Your task to perform on an android device: add a contact in the contacts app Image 0: 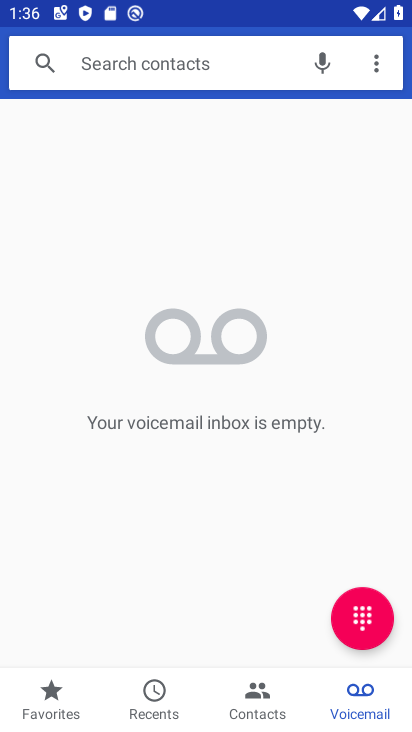
Step 0: press home button
Your task to perform on an android device: add a contact in the contacts app Image 1: 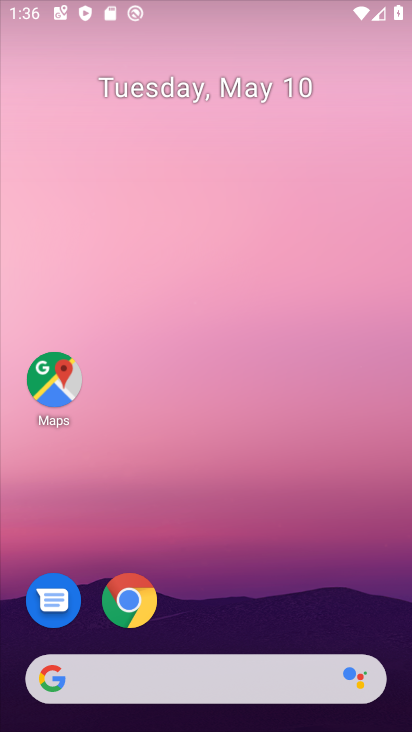
Step 1: drag from (250, 573) to (257, 52)
Your task to perform on an android device: add a contact in the contacts app Image 2: 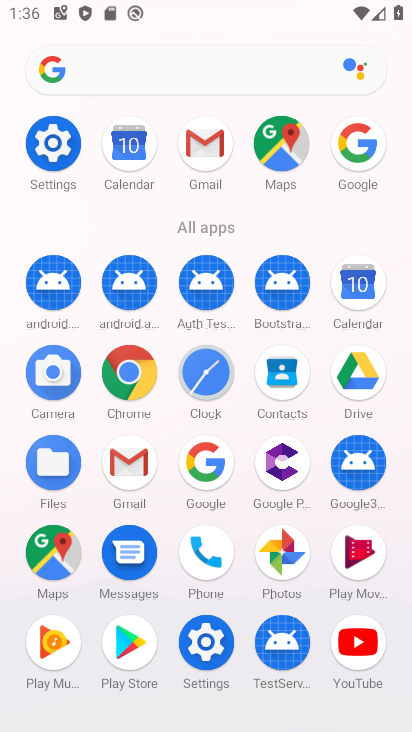
Step 2: click (277, 378)
Your task to perform on an android device: add a contact in the contacts app Image 3: 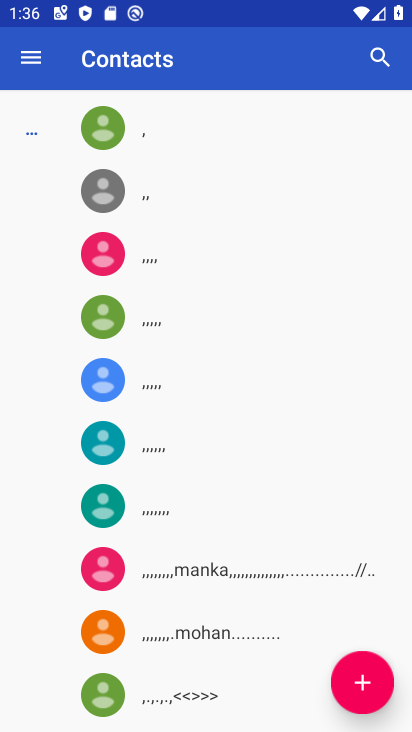
Step 3: type "gffrs"
Your task to perform on an android device: add a contact in the contacts app Image 4: 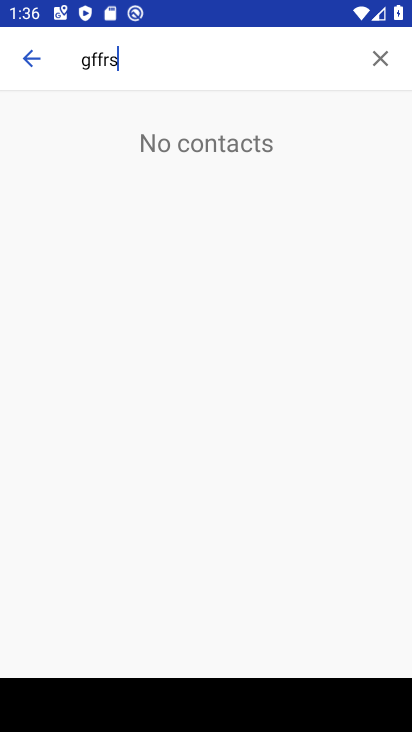
Step 4: click (373, 56)
Your task to perform on an android device: add a contact in the contacts app Image 5: 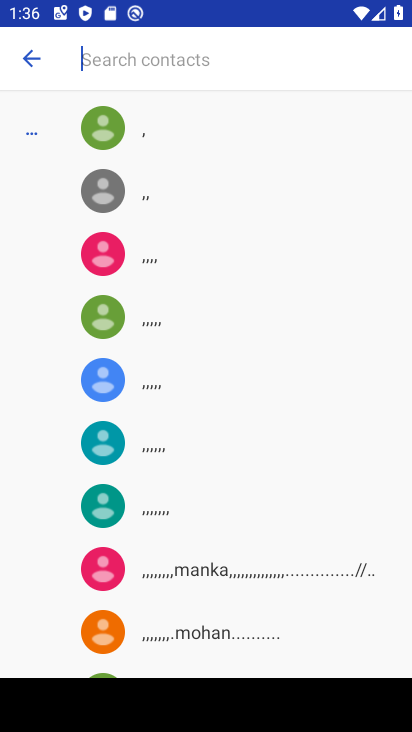
Step 5: press back button
Your task to perform on an android device: add a contact in the contacts app Image 6: 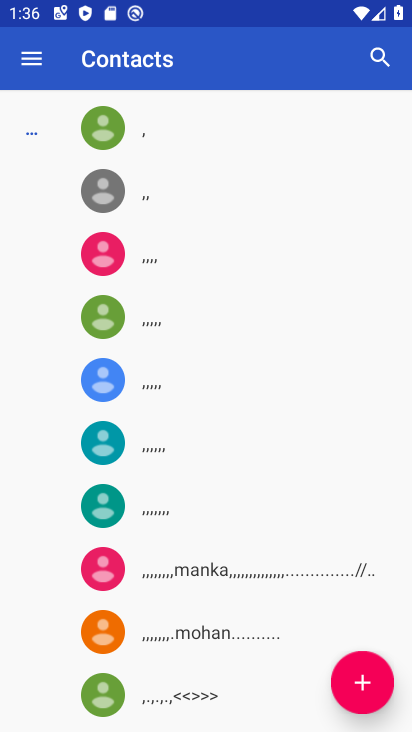
Step 6: click (358, 673)
Your task to perform on an android device: add a contact in the contacts app Image 7: 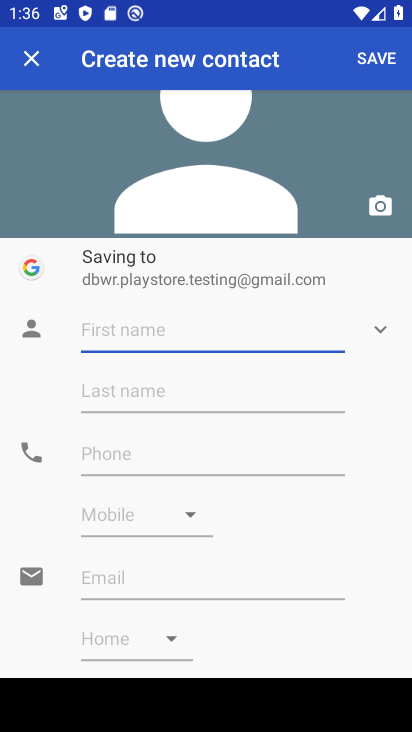
Step 7: type "bfgf"
Your task to perform on an android device: add a contact in the contacts app Image 8: 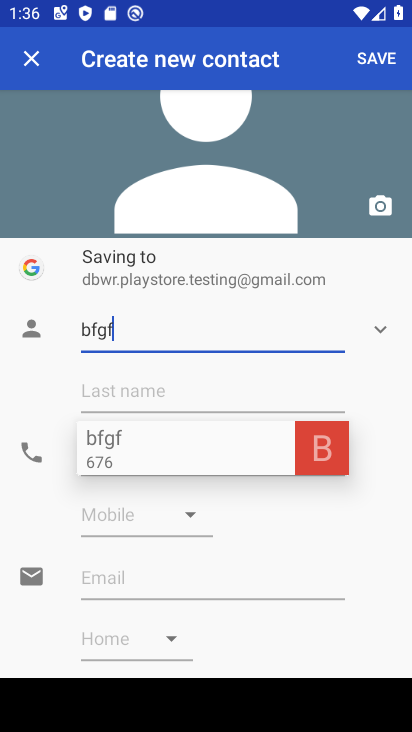
Step 8: click (372, 61)
Your task to perform on an android device: add a contact in the contacts app Image 9: 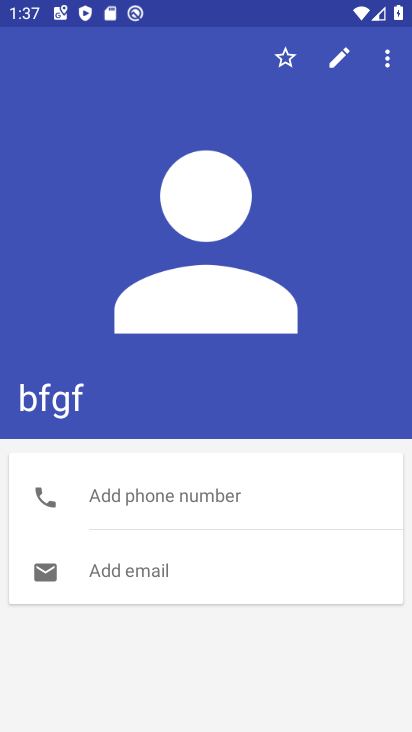
Step 9: task complete